Your task to perform on an android device: Open Android settings Image 0: 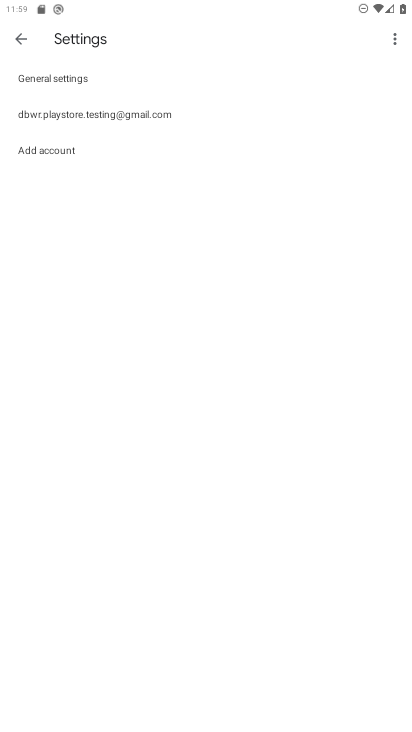
Step 0: press home button
Your task to perform on an android device: Open Android settings Image 1: 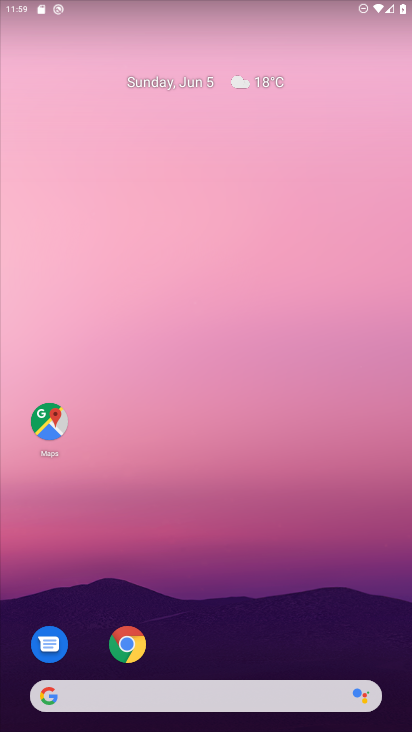
Step 1: drag from (268, 713) to (182, 128)
Your task to perform on an android device: Open Android settings Image 2: 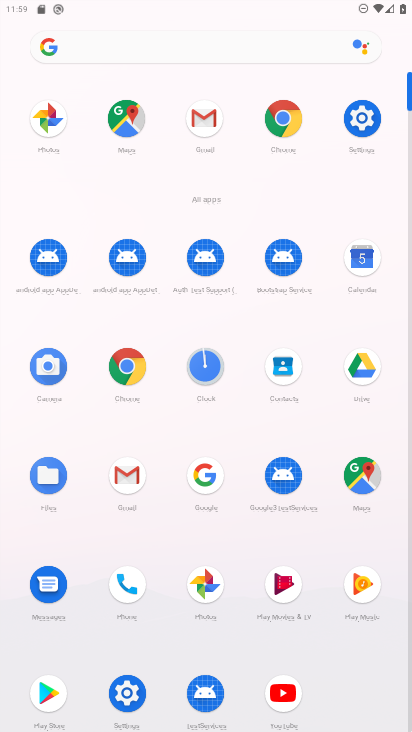
Step 2: click (351, 137)
Your task to perform on an android device: Open Android settings Image 3: 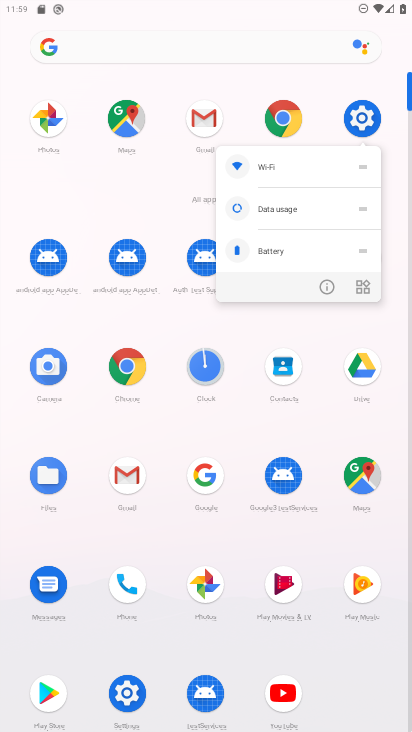
Step 3: click (354, 134)
Your task to perform on an android device: Open Android settings Image 4: 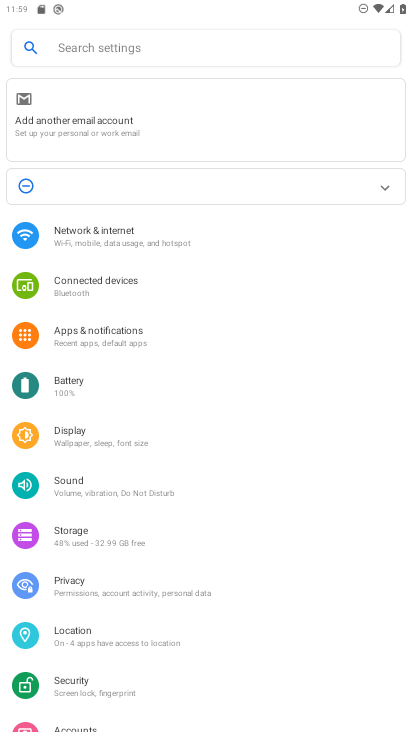
Step 4: click (122, 45)
Your task to perform on an android device: Open Android settings Image 5: 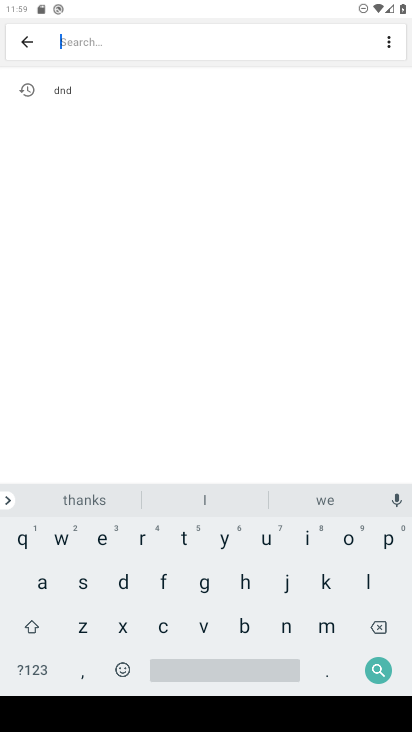
Step 5: click (40, 599)
Your task to perform on an android device: Open Android settings Image 6: 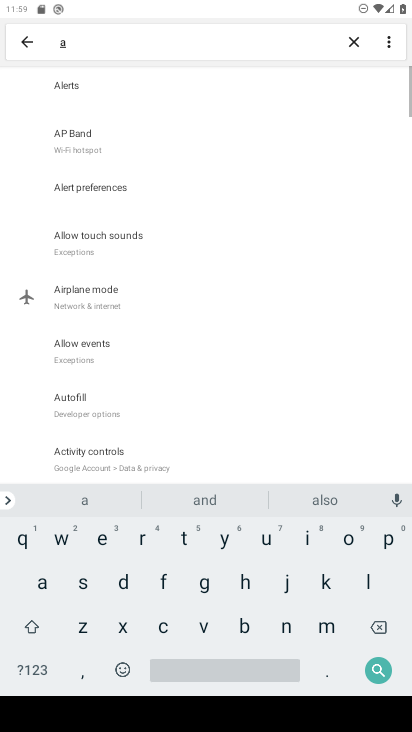
Step 6: click (287, 628)
Your task to perform on an android device: Open Android settings Image 7: 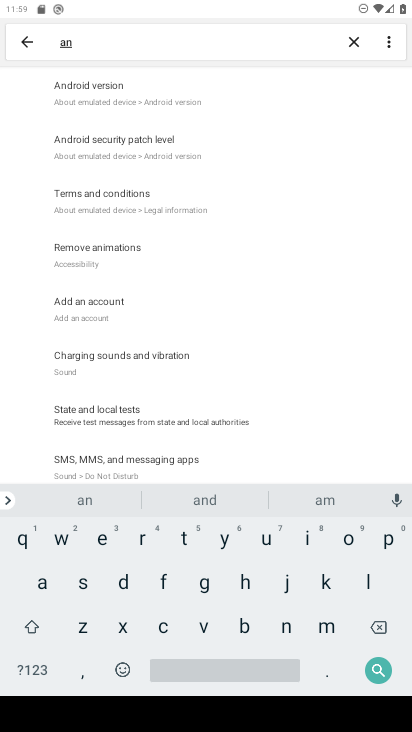
Step 7: click (125, 103)
Your task to perform on an android device: Open Android settings Image 8: 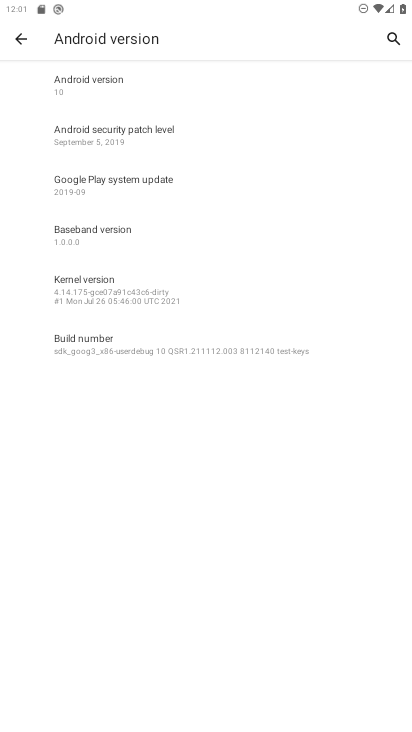
Step 8: task complete